Your task to perform on an android device: Show the shopping cart on costco.com. Add razer blade to the cart on costco.com Image 0: 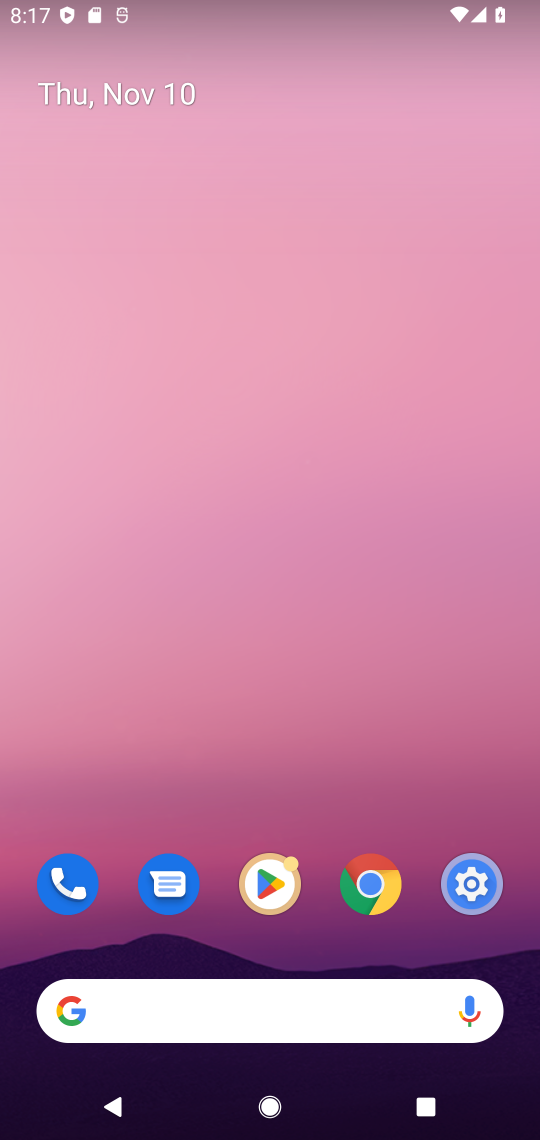
Step 0: drag from (261, 773) to (278, 58)
Your task to perform on an android device: Show the shopping cart on costco.com. Add razer blade to the cart on costco.com Image 1: 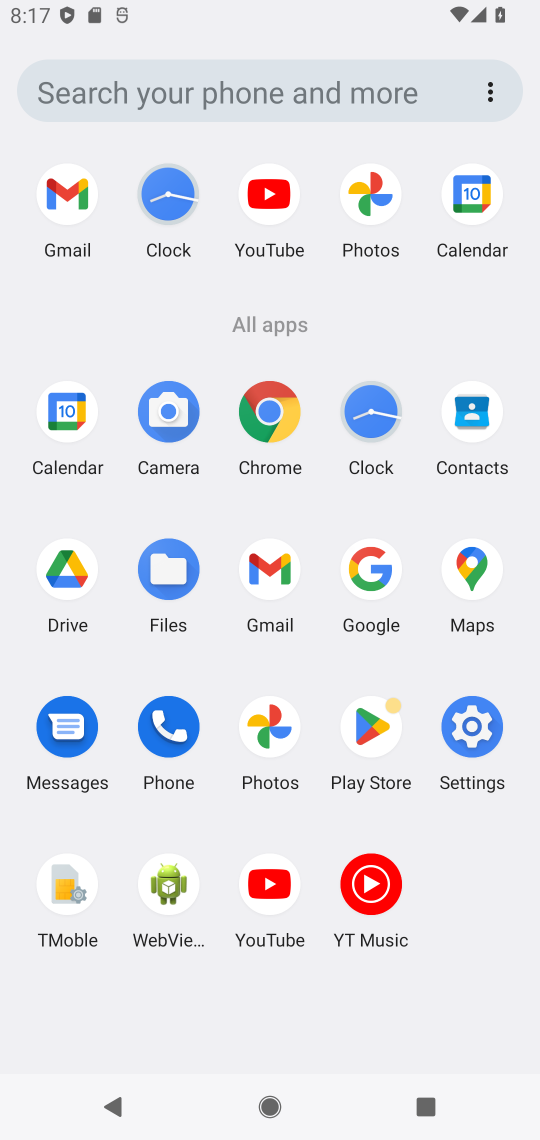
Step 1: click (377, 606)
Your task to perform on an android device: Show the shopping cart on costco.com. Add razer blade to the cart on costco.com Image 2: 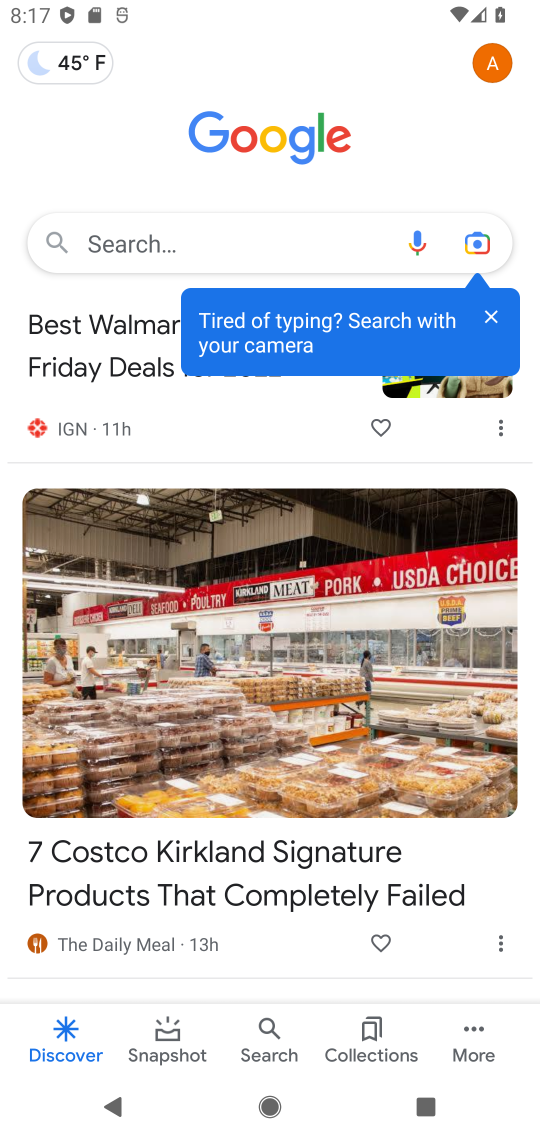
Step 2: click (181, 245)
Your task to perform on an android device: Show the shopping cart on costco.com. Add razer blade to the cart on costco.com Image 3: 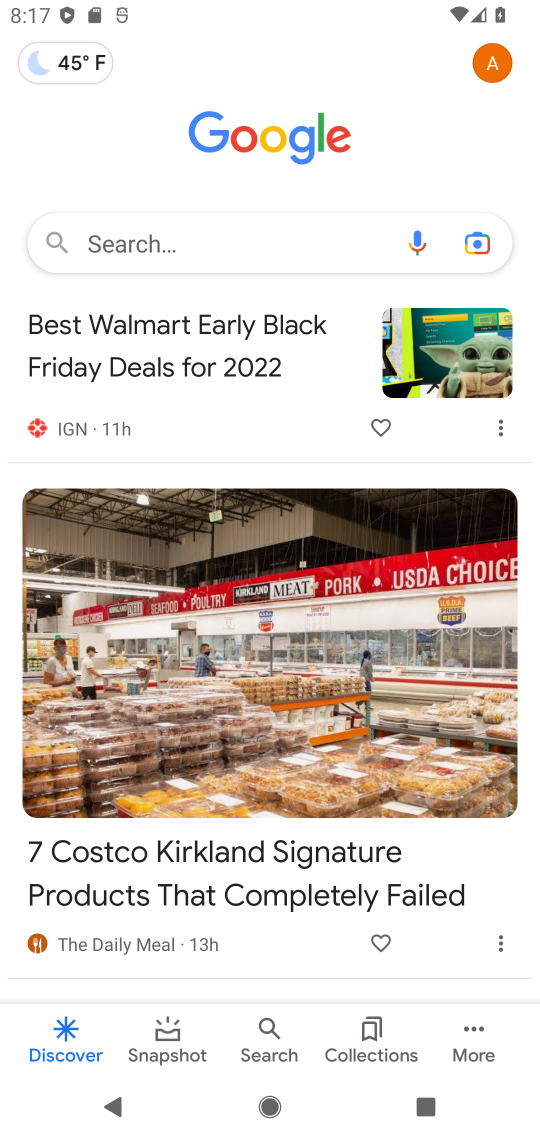
Step 3: type "costco.com"
Your task to perform on an android device: Show the shopping cart on costco.com. Add razer blade to the cart on costco.com Image 4: 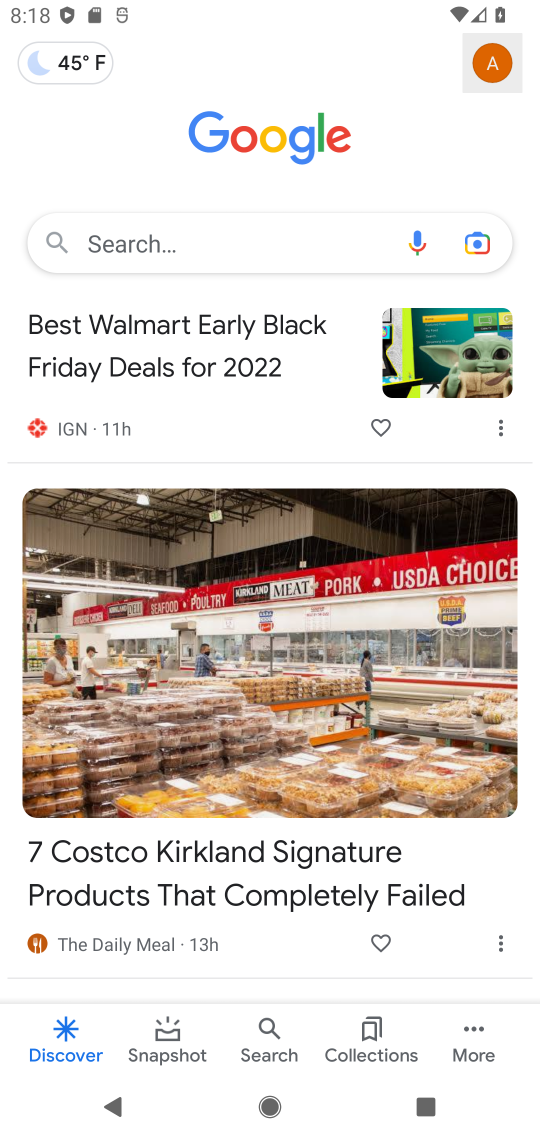
Step 4: click (210, 233)
Your task to perform on an android device: Show the shopping cart on costco.com. Add razer blade to the cart on costco.com Image 5: 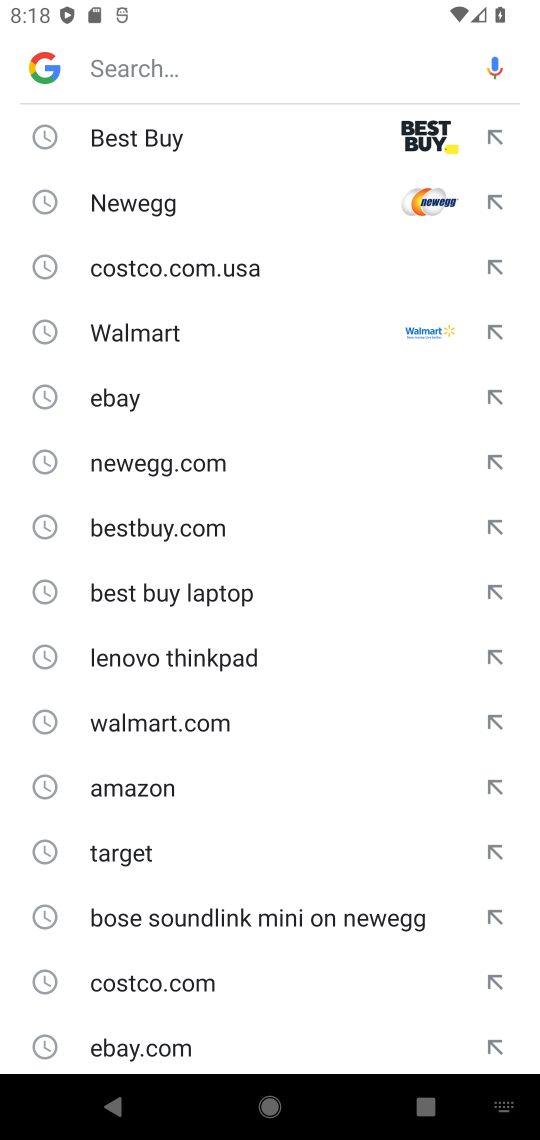
Step 5: type "costco.com"
Your task to perform on an android device: Show the shopping cart on costco.com. Add razer blade to the cart on costco.com Image 6: 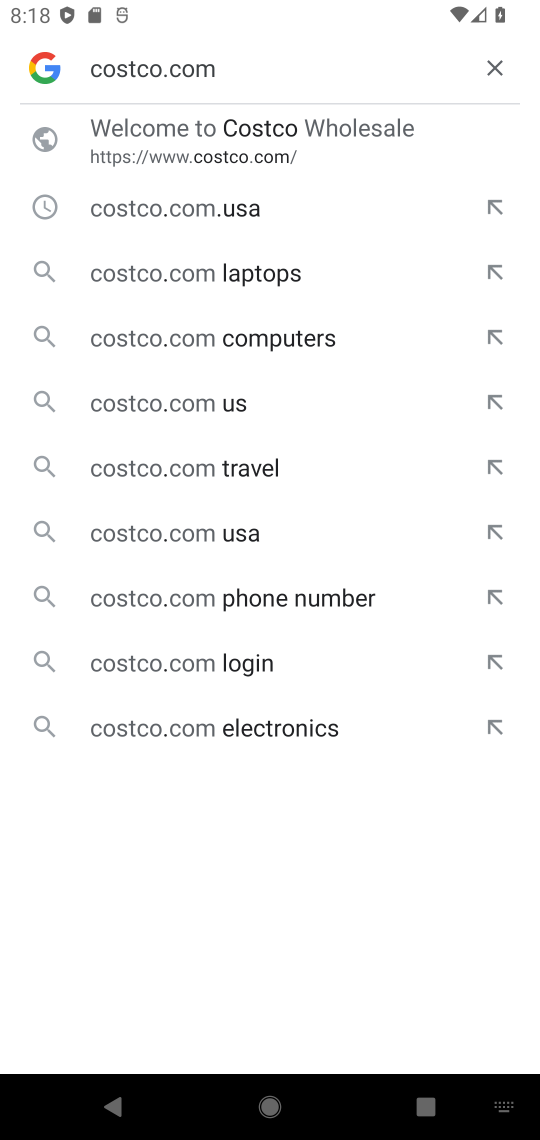
Step 6: click (226, 141)
Your task to perform on an android device: Show the shopping cart on costco.com. Add razer blade to the cart on costco.com Image 7: 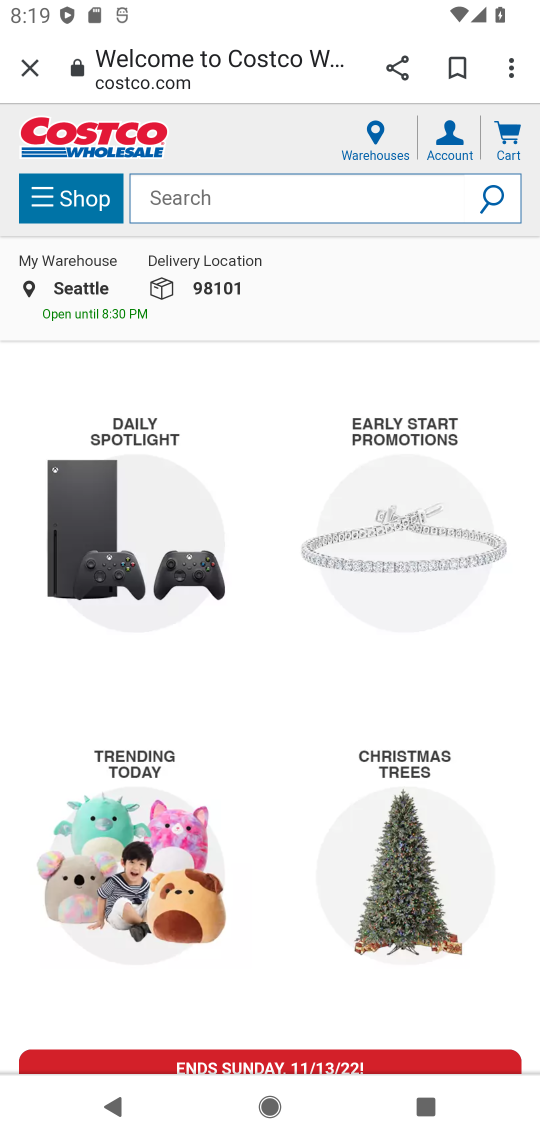
Step 7: click (320, 198)
Your task to perform on an android device: Show the shopping cart on costco.com. Add razer blade to the cart on costco.com Image 8: 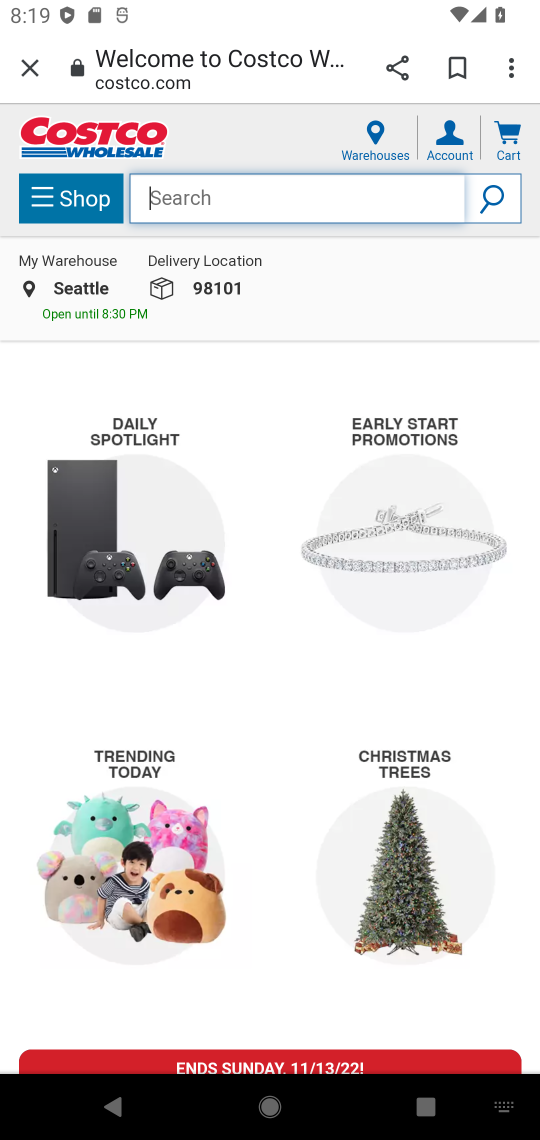
Step 8: type "razer blade"
Your task to perform on an android device: Show the shopping cart on costco.com. Add razer blade to the cart on costco.com Image 9: 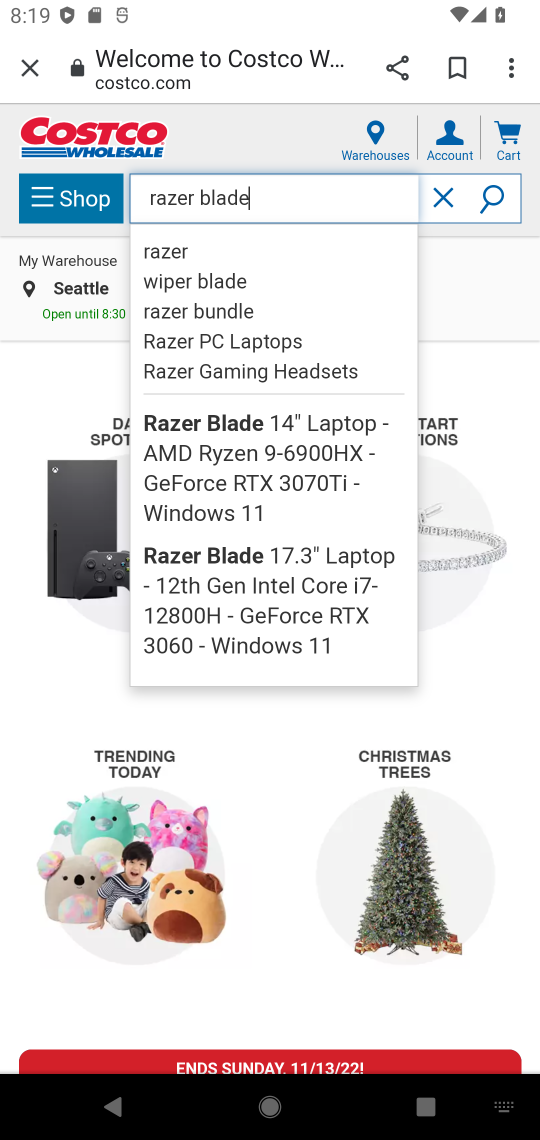
Step 9: drag from (237, 289) to (48, 409)
Your task to perform on an android device: Show the shopping cart on costco.com. Add razer blade to the cart on costco.com Image 10: 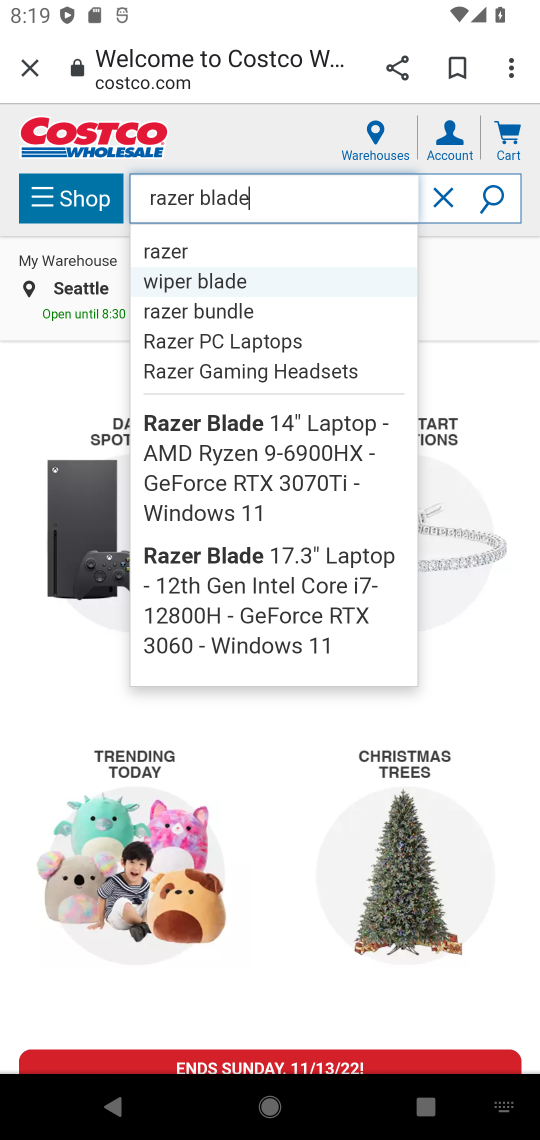
Step 10: click (260, 558)
Your task to perform on an android device: Show the shopping cart on costco.com. Add razer blade to the cart on costco.com Image 11: 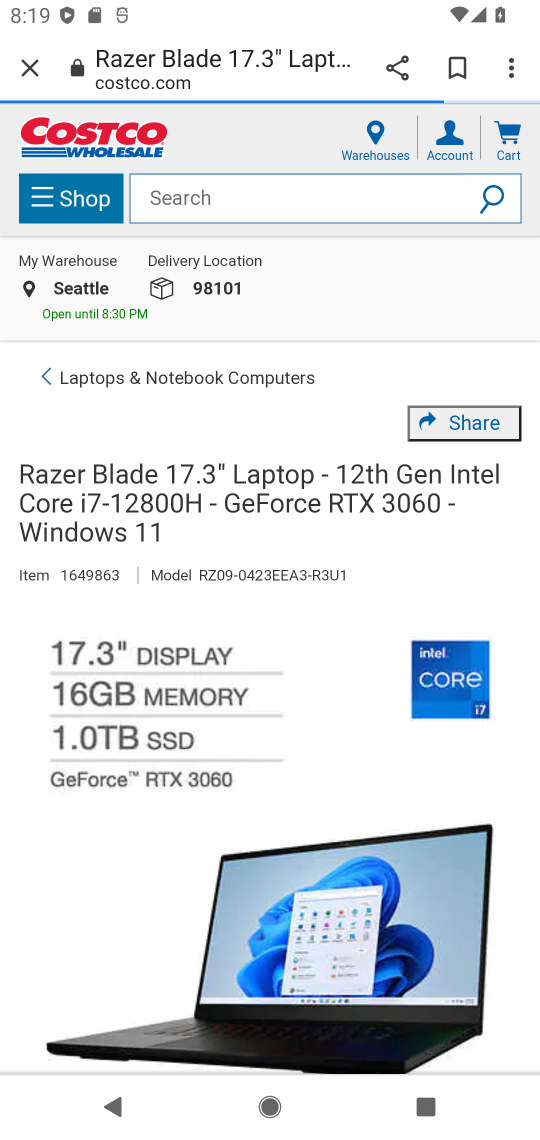
Step 11: drag from (281, 588) to (286, 429)
Your task to perform on an android device: Show the shopping cart on costco.com. Add razer blade to the cart on costco.com Image 12: 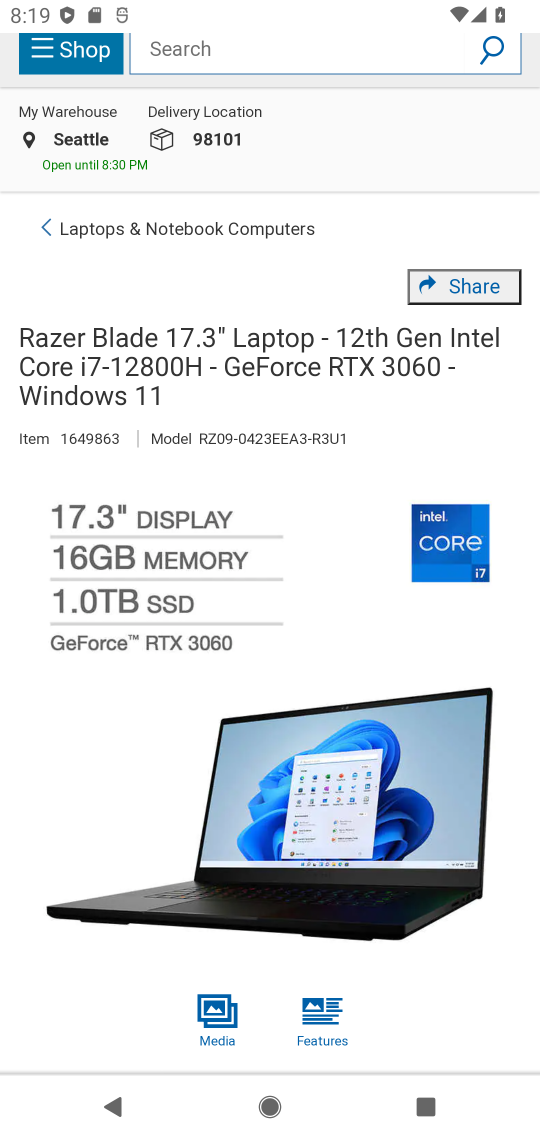
Step 12: drag from (142, 739) to (160, 511)
Your task to perform on an android device: Show the shopping cart on costco.com. Add razer blade to the cart on costco.com Image 13: 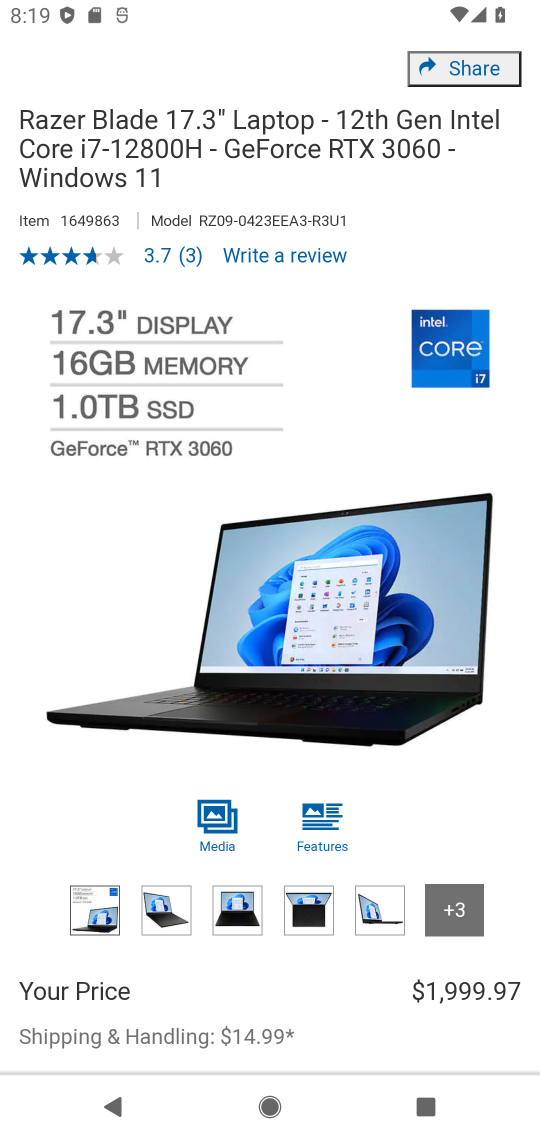
Step 13: drag from (308, 875) to (308, 600)
Your task to perform on an android device: Show the shopping cart on costco.com. Add razer blade to the cart on costco.com Image 14: 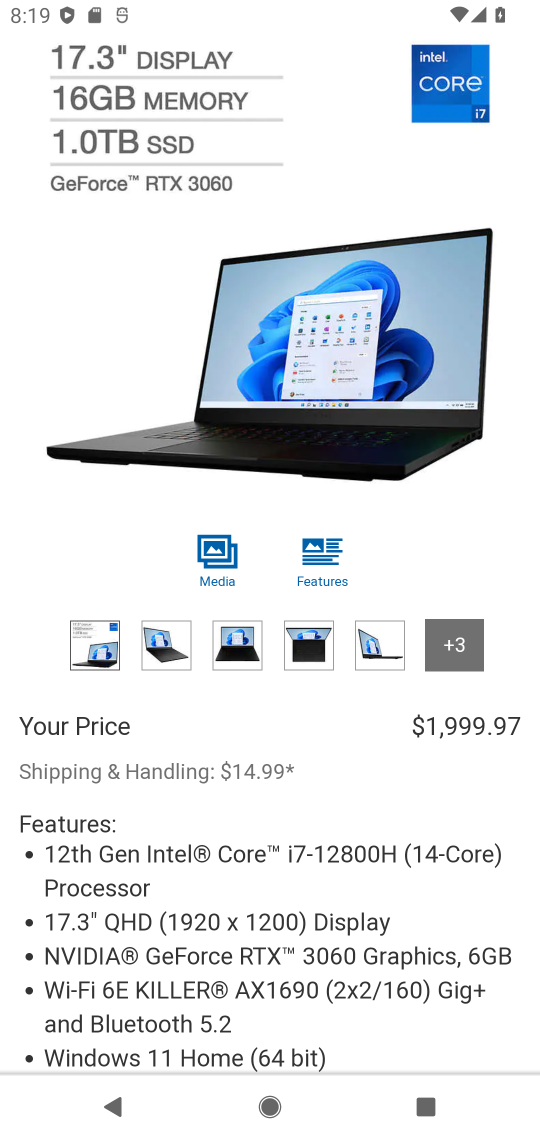
Step 14: drag from (306, 863) to (306, 395)
Your task to perform on an android device: Show the shopping cart on costco.com. Add razer blade to the cart on costco.com Image 15: 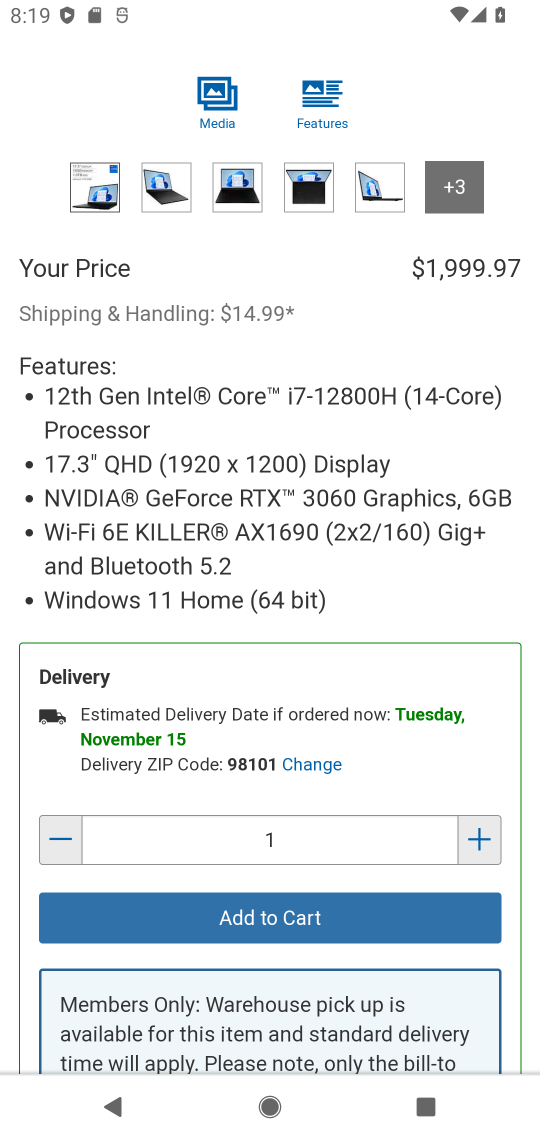
Step 15: click (269, 921)
Your task to perform on an android device: Show the shopping cart on costco.com. Add razer blade to the cart on costco.com Image 16: 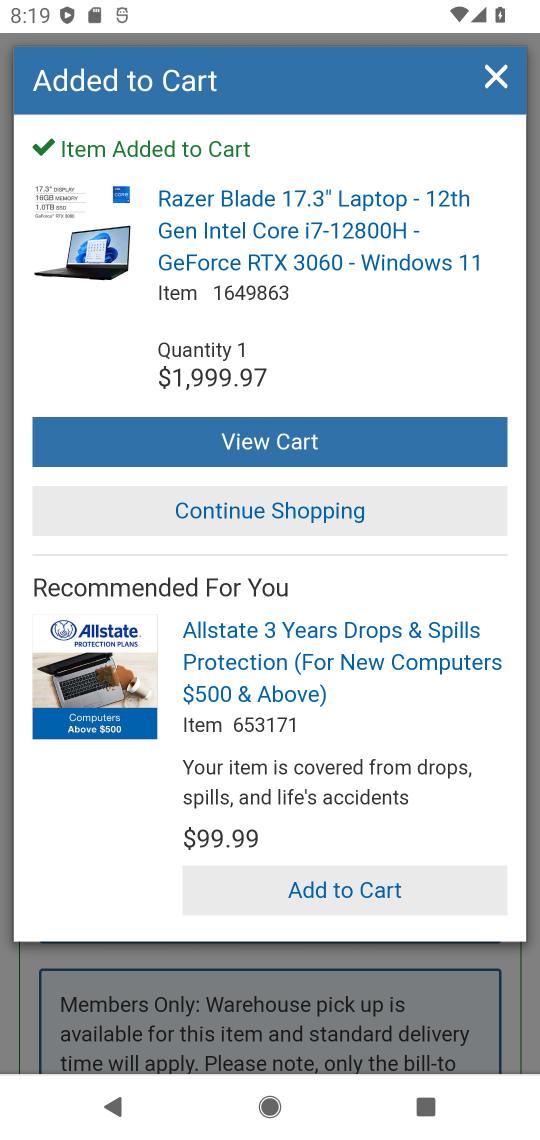
Step 16: task complete